Your task to perform on an android device: turn on the 12-hour format for clock Image 0: 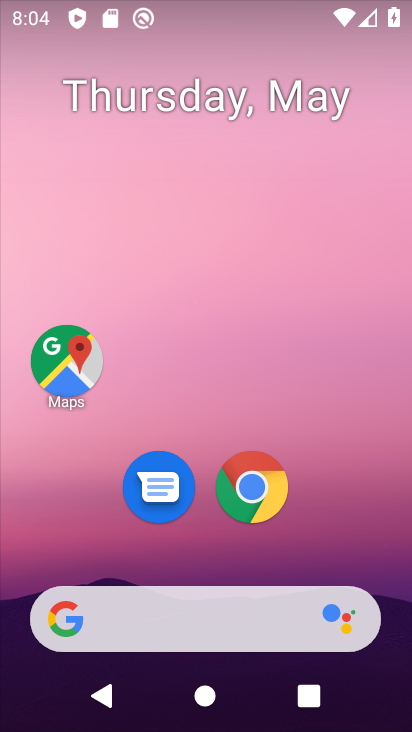
Step 0: drag from (210, 557) to (249, 49)
Your task to perform on an android device: turn on the 12-hour format for clock Image 1: 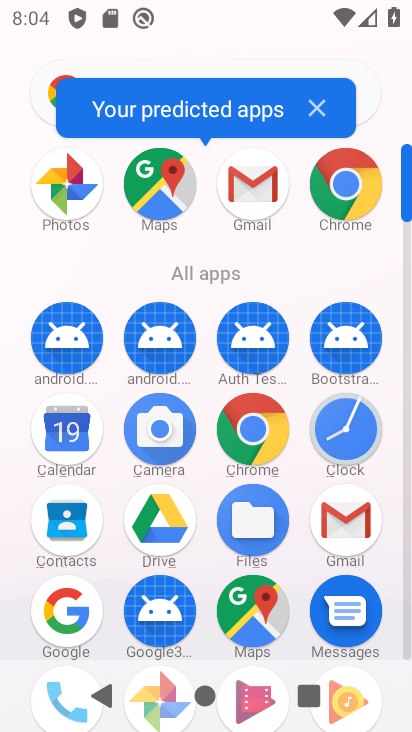
Step 1: click (327, 424)
Your task to perform on an android device: turn on the 12-hour format for clock Image 2: 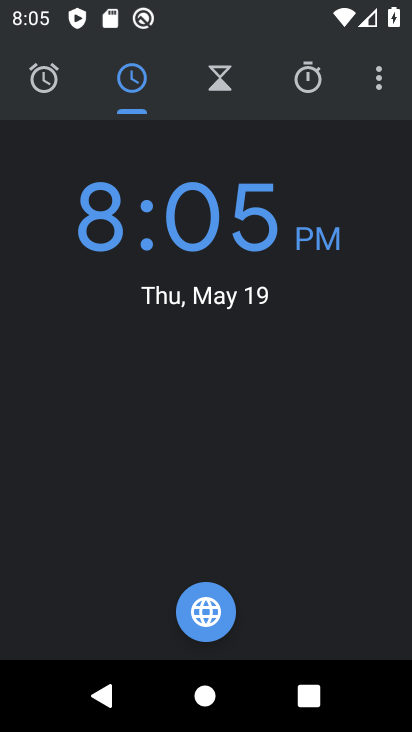
Step 2: click (383, 84)
Your task to perform on an android device: turn on the 12-hour format for clock Image 3: 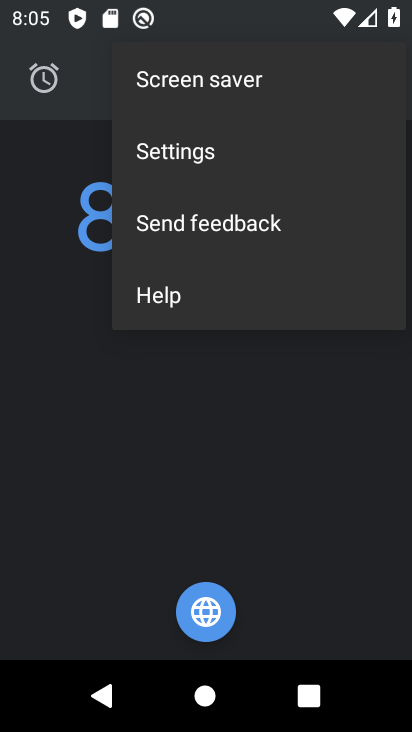
Step 3: click (173, 145)
Your task to perform on an android device: turn on the 12-hour format for clock Image 4: 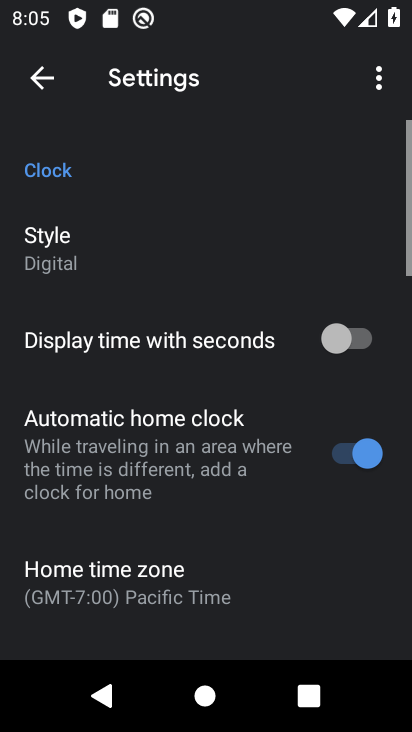
Step 4: drag from (190, 533) to (161, 194)
Your task to perform on an android device: turn on the 12-hour format for clock Image 5: 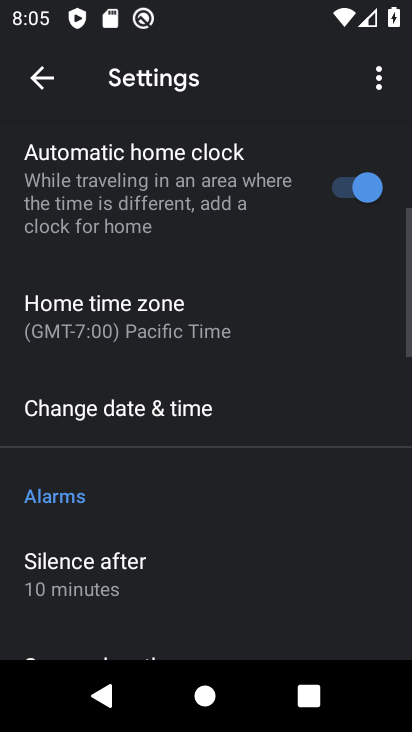
Step 5: click (164, 417)
Your task to perform on an android device: turn on the 12-hour format for clock Image 6: 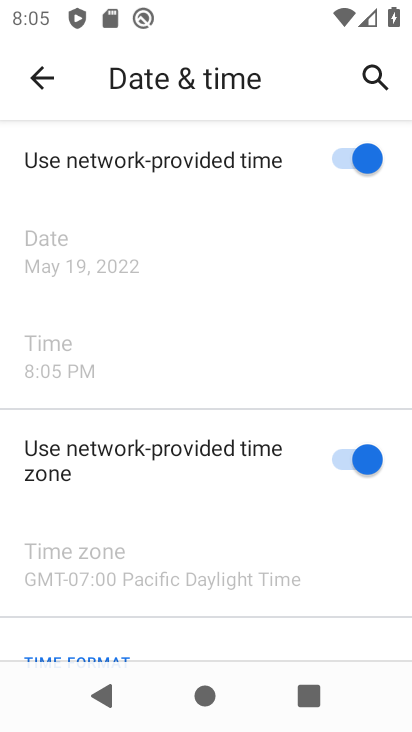
Step 6: task complete